Your task to perform on an android device: open the mobile data screen to see how much data has been used Image 0: 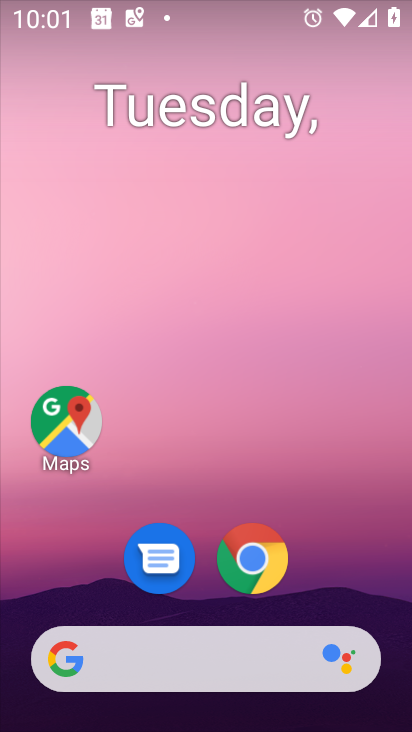
Step 0: drag from (337, 575) to (203, 182)
Your task to perform on an android device: open the mobile data screen to see how much data has been used Image 1: 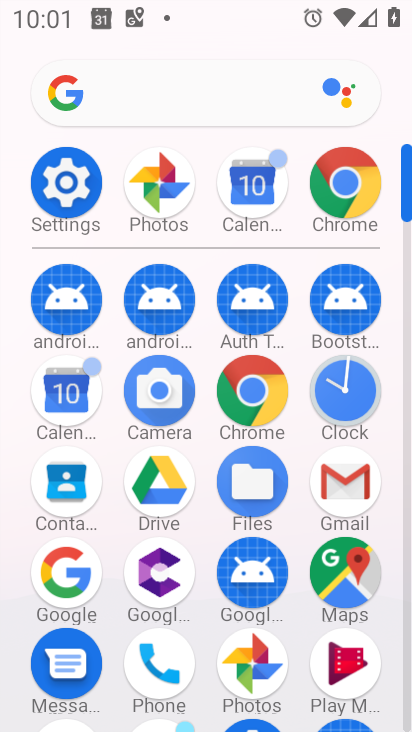
Step 1: click (71, 176)
Your task to perform on an android device: open the mobile data screen to see how much data has been used Image 2: 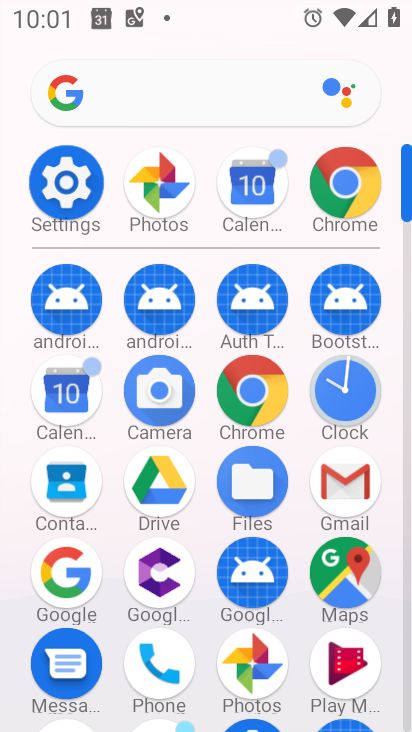
Step 2: click (71, 181)
Your task to perform on an android device: open the mobile data screen to see how much data has been used Image 3: 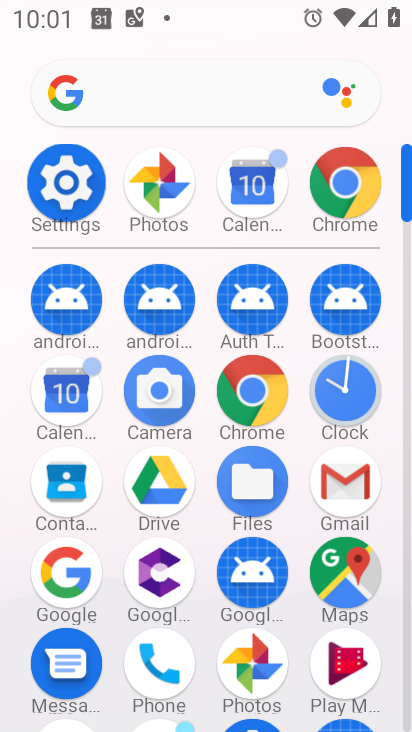
Step 3: click (70, 182)
Your task to perform on an android device: open the mobile data screen to see how much data has been used Image 4: 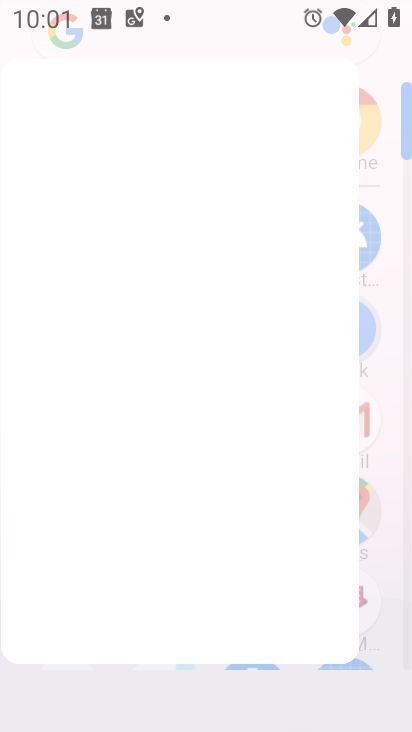
Step 4: click (70, 182)
Your task to perform on an android device: open the mobile data screen to see how much data has been used Image 5: 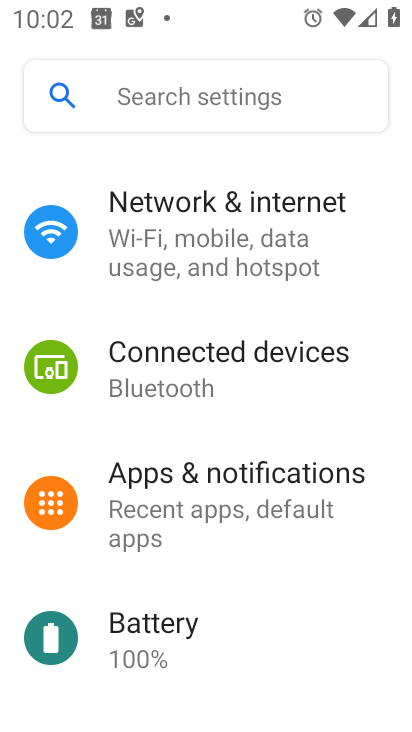
Step 5: click (70, 182)
Your task to perform on an android device: open the mobile data screen to see how much data has been used Image 6: 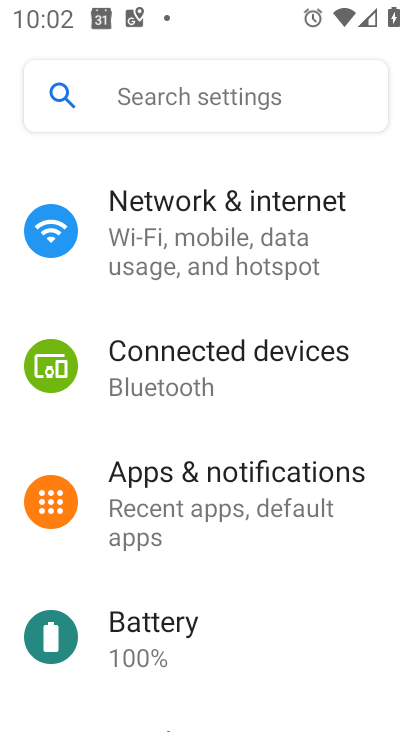
Step 6: click (70, 182)
Your task to perform on an android device: open the mobile data screen to see how much data has been used Image 7: 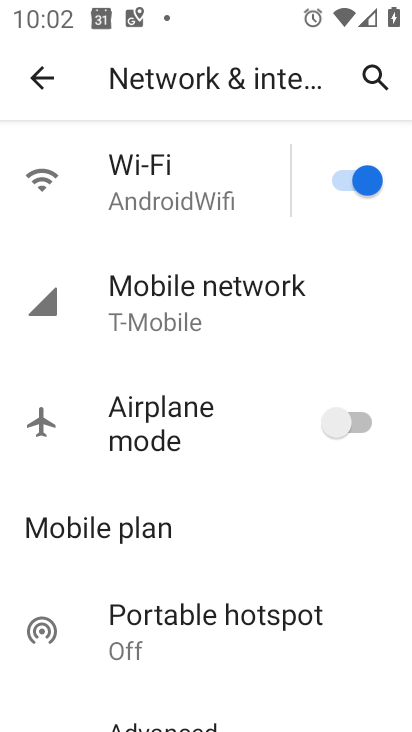
Step 7: task complete